Your task to perform on an android device: turn on translation in the chrome app Image 0: 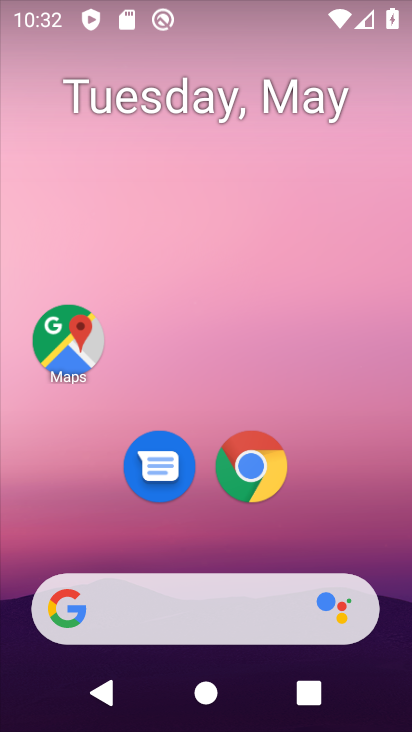
Step 0: click (246, 451)
Your task to perform on an android device: turn on translation in the chrome app Image 1: 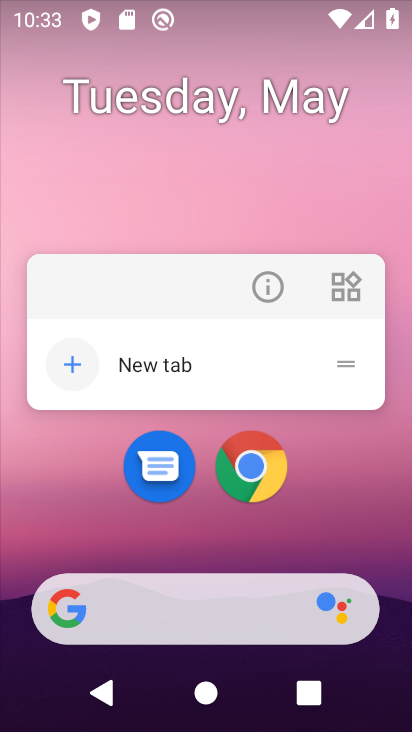
Step 1: click (254, 460)
Your task to perform on an android device: turn on translation in the chrome app Image 2: 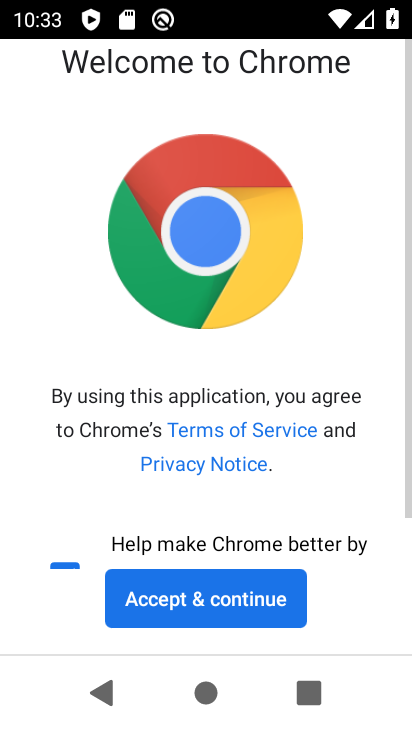
Step 2: click (191, 614)
Your task to perform on an android device: turn on translation in the chrome app Image 3: 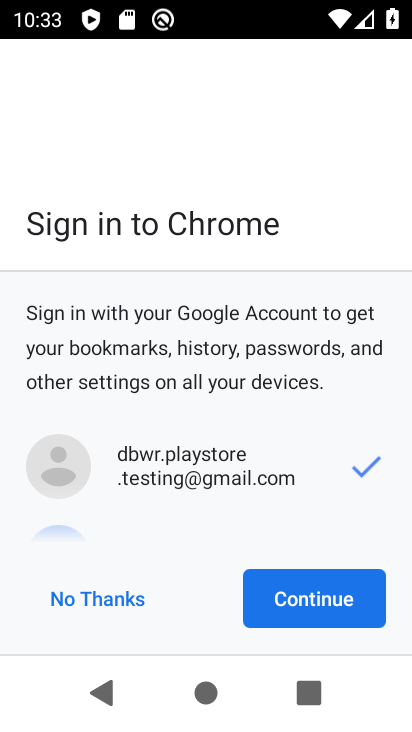
Step 3: click (278, 610)
Your task to perform on an android device: turn on translation in the chrome app Image 4: 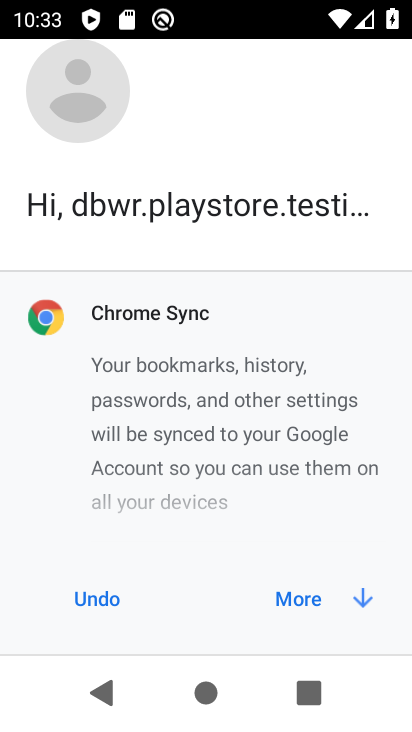
Step 4: click (297, 591)
Your task to perform on an android device: turn on translation in the chrome app Image 5: 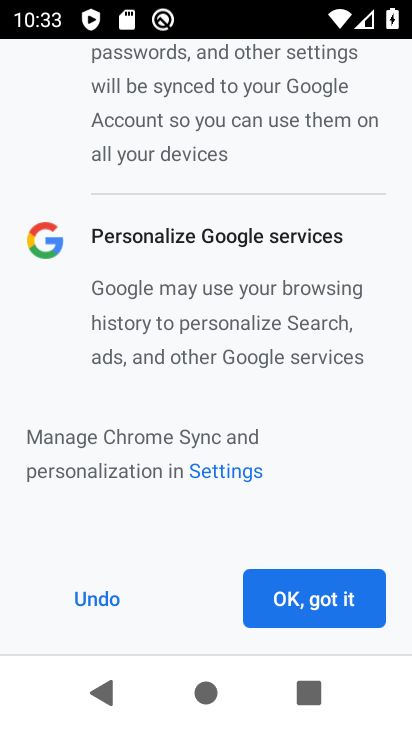
Step 5: click (291, 594)
Your task to perform on an android device: turn on translation in the chrome app Image 6: 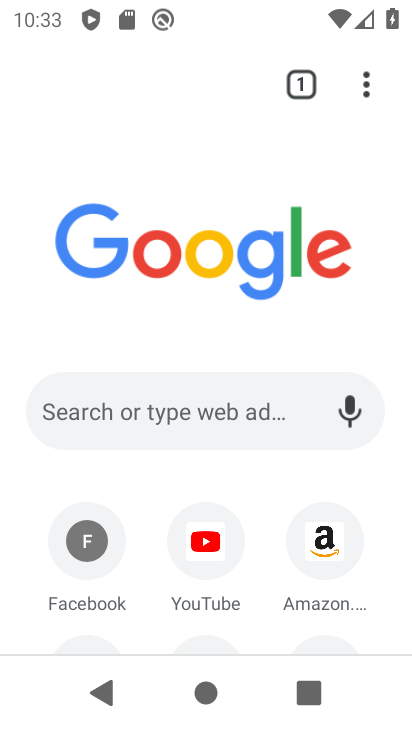
Step 6: click (345, 91)
Your task to perform on an android device: turn on translation in the chrome app Image 7: 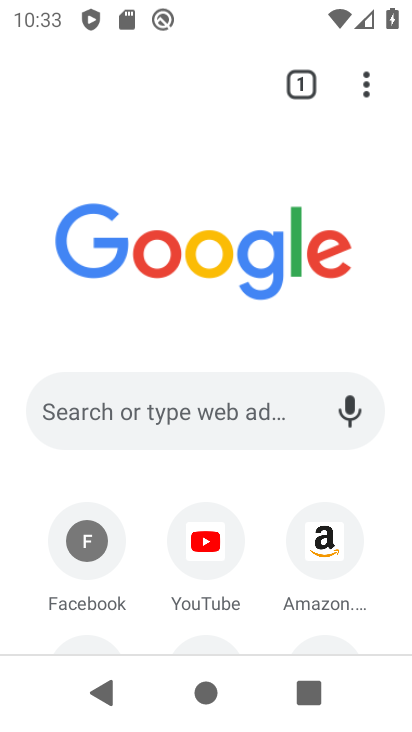
Step 7: drag from (363, 85) to (178, 502)
Your task to perform on an android device: turn on translation in the chrome app Image 8: 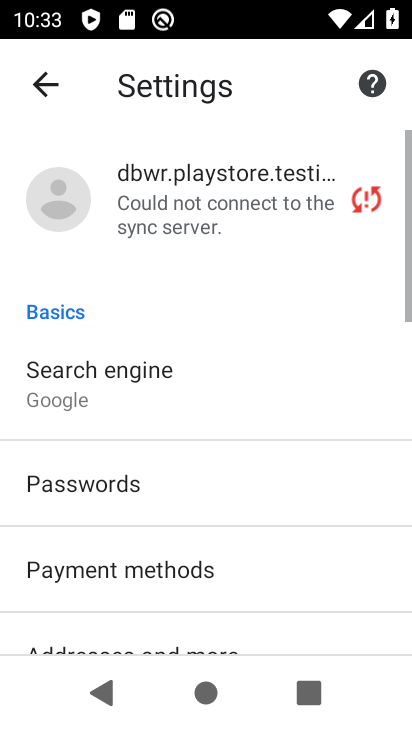
Step 8: drag from (162, 569) to (203, 99)
Your task to perform on an android device: turn on translation in the chrome app Image 9: 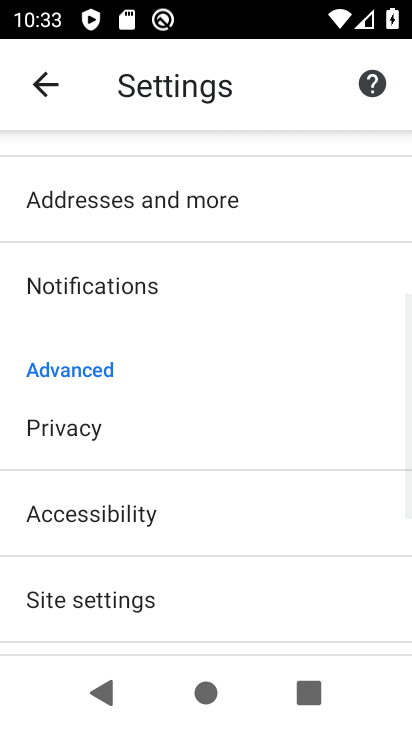
Step 9: drag from (157, 594) to (221, 135)
Your task to perform on an android device: turn on translation in the chrome app Image 10: 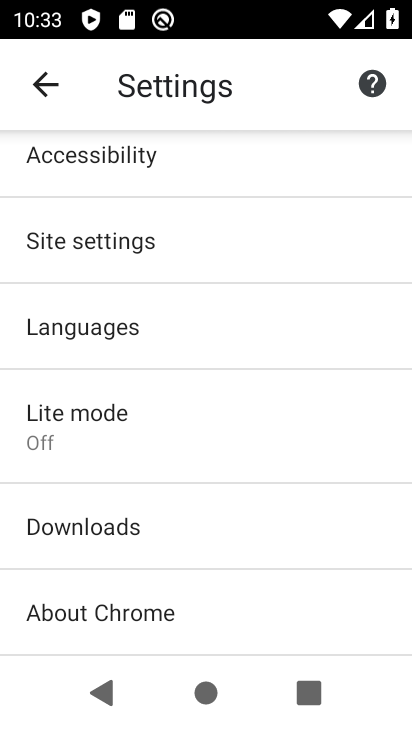
Step 10: click (83, 324)
Your task to perform on an android device: turn on translation in the chrome app Image 11: 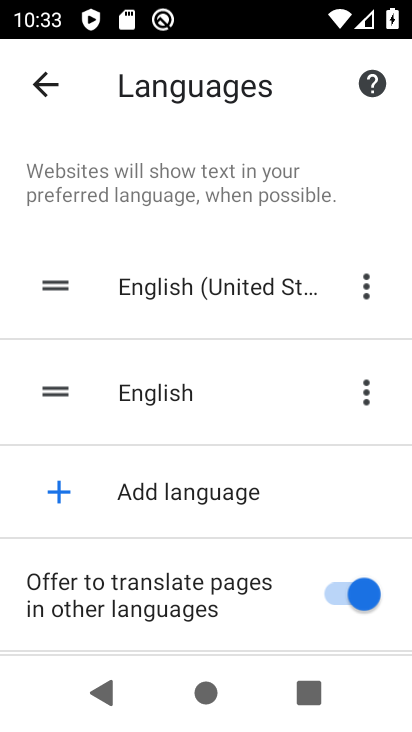
Step 11: task complete